Your task to perform on an android device: empty trash in the gmail app Image 0: 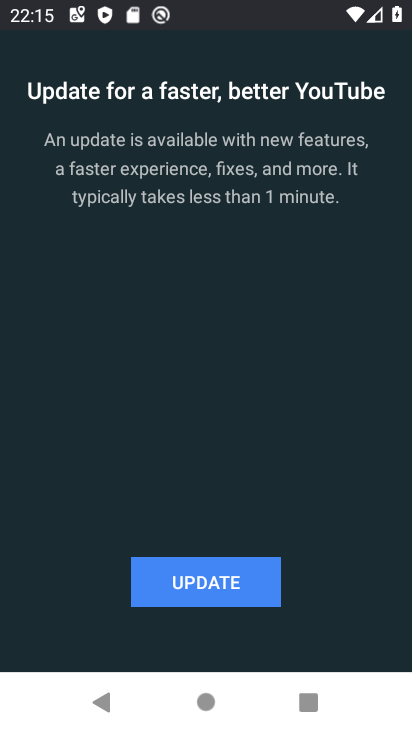
Step 0: press home button
Your task to perform on an android device: empty trash in the gmail app Image 1: 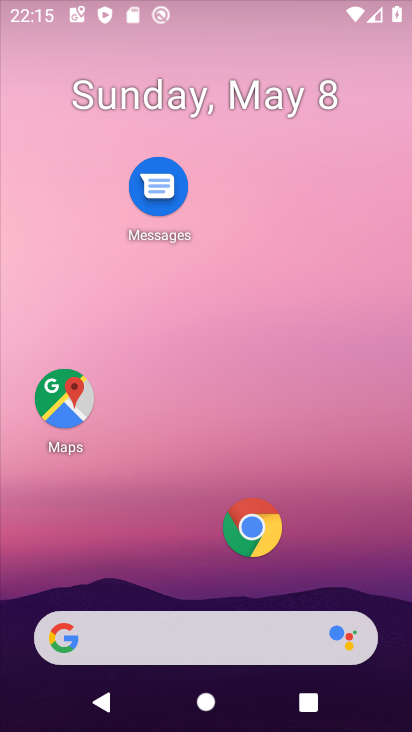
Step 1: drag from (167, 567) to (128, 93)
Your task to perform on an android device: empty trash in the gmail app Image 2: 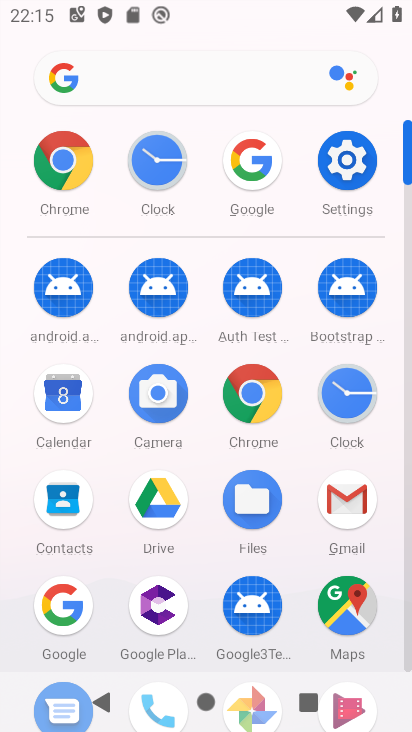
Step 2: click (344, 488)
Your task to perform on an android device: empty trash in the gmail app Image 3: 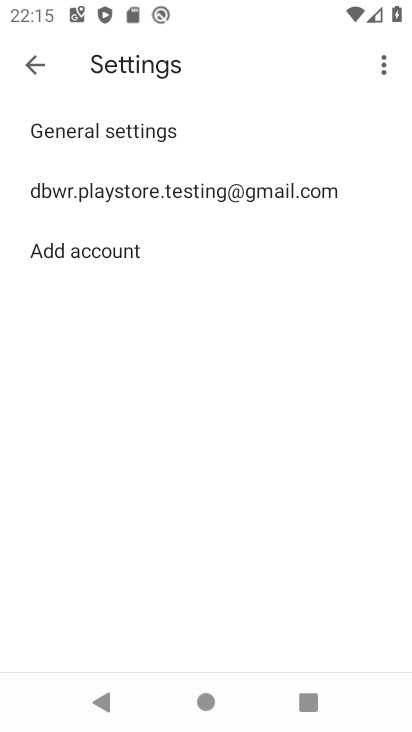
Step 3: drag from (104, 183) to (207, 71)
Your task to perform on an android device: empty trash in the gmail app Image 4: 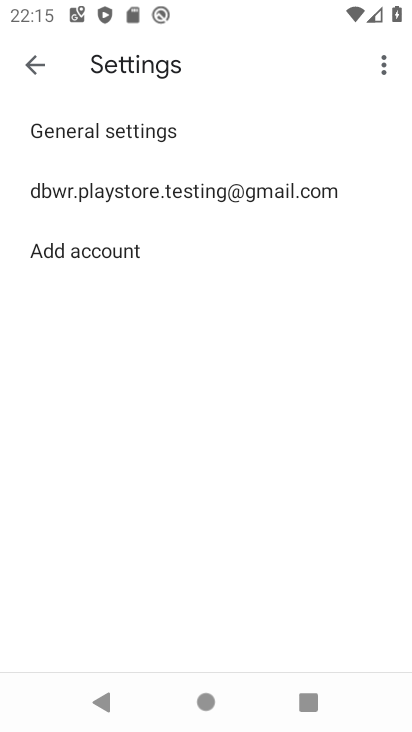
Step 4: click (120, 130)
Your task to perform on an android device: empty trash in the gmail app Image 5: 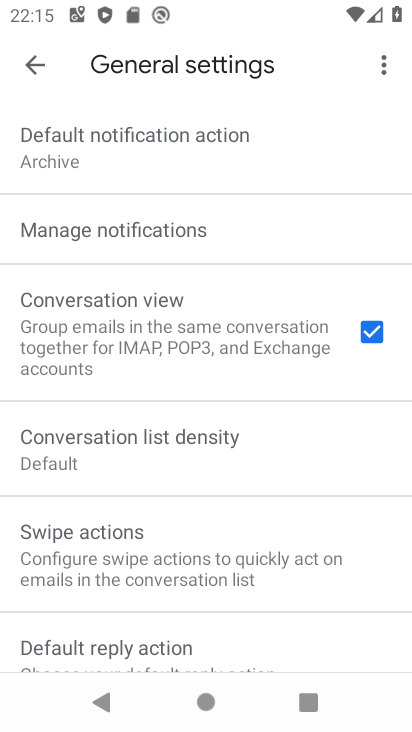
Step 5: press back button
Your task to perform on an android device: empty trash in the gmail app Image 6: 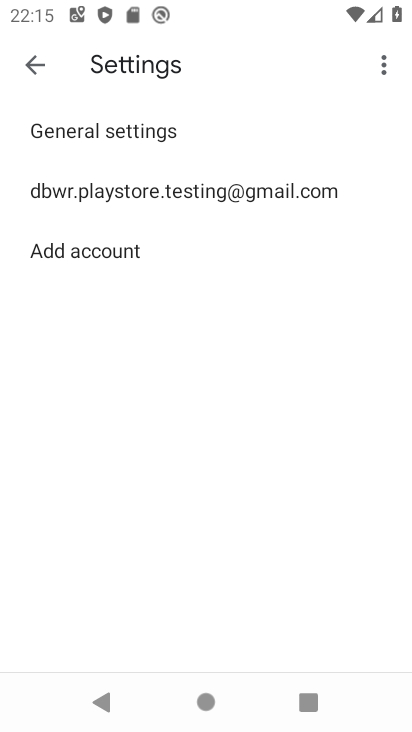
Step 6: click (179, 195)
Your task to perform on an android device: empty trash in the gmail app Image 7: 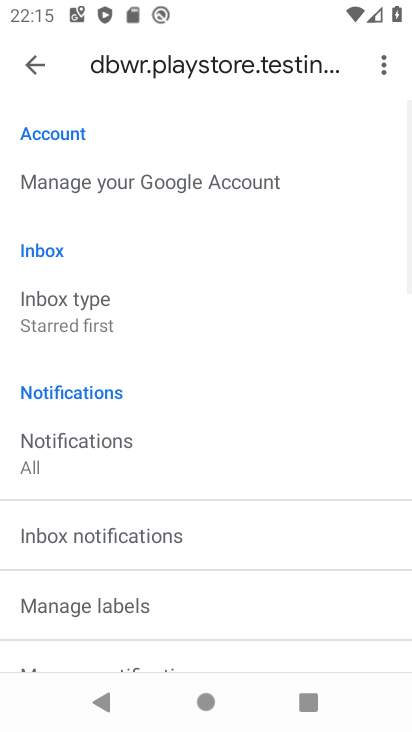
Step 7: drag from (131, 540) to (164, 241)
Your task to perform on an android device: empty trash in the gmail app Image 8: 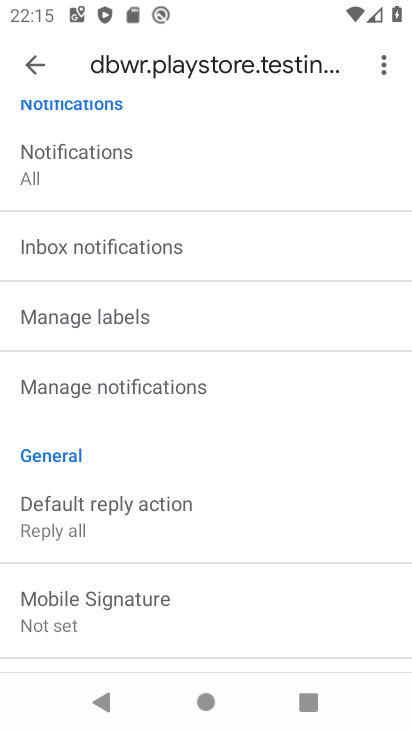
Step 8: press back button
Your task to perform on an android device: empty trash in the gmail app Image 9: 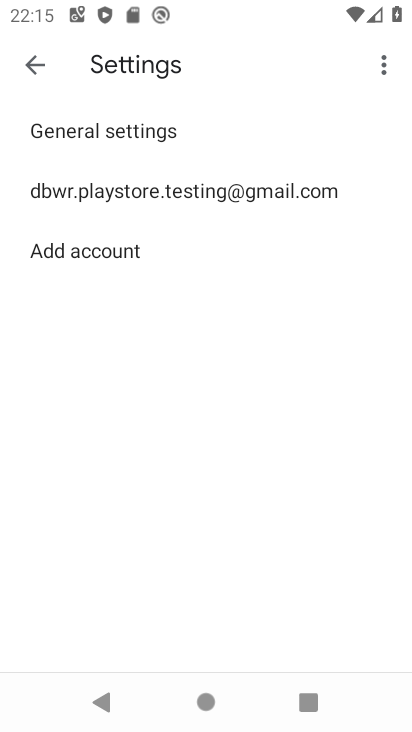
Step 9: press back button
Your task to perform on an android device: empty trash in the gmail app Image 10: 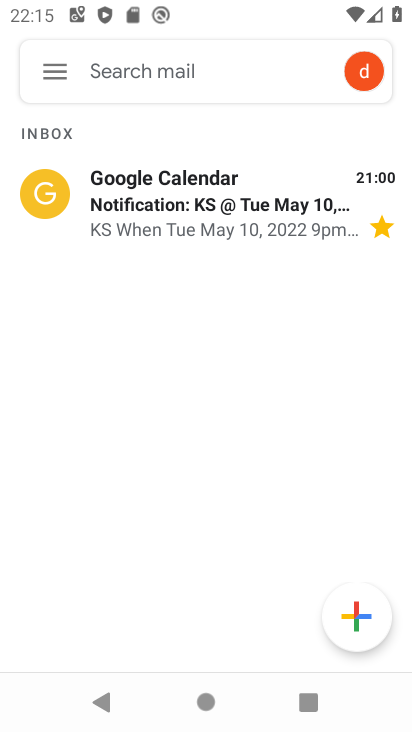
Step 10: click (48, 64)
Your task to perform on an android device: empty trash in the gmail app Image 11: 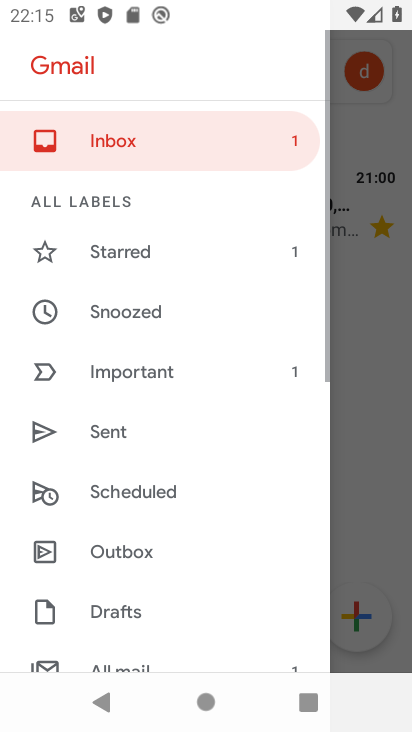
Step 11: drag from (158, 579) to (172, 146)
Your task to perform on an android device: empty trash in the gmail app Image 12: 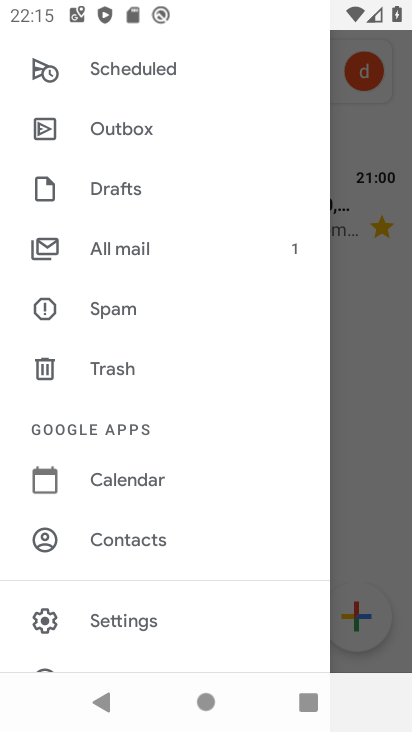
Step 12: click (119, 368)
Your task to perform on an android device: empty trash in the gmail app Image 13: 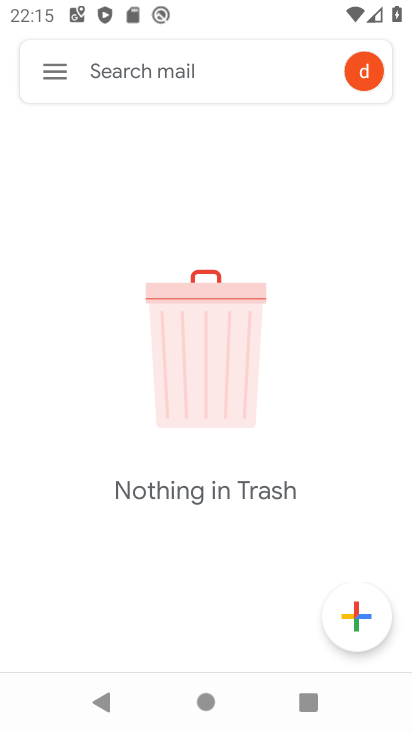
Step 13: task complete